Your task to perform on an android device: Search for Italian restaurants on Maps Image 0: 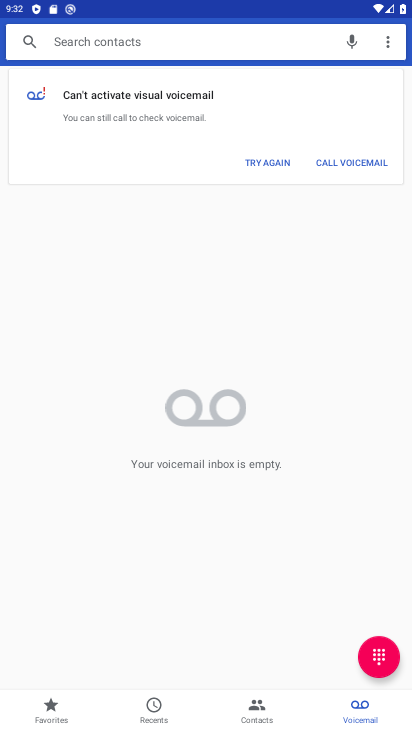
Step 0: press home button
Your task to perform on an android device: Search for Italian restaurants on Maps Image 1: 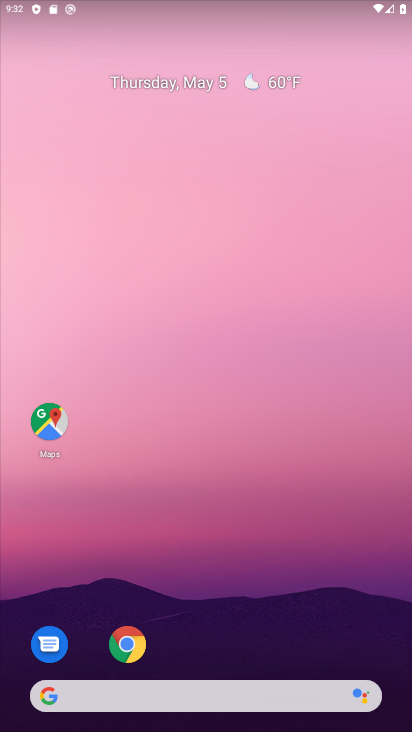
Step 1: drag from (388, 645) to (356, 45)
Your task to perform on an android device: Search for Italian restaurants on Maps Image 2: 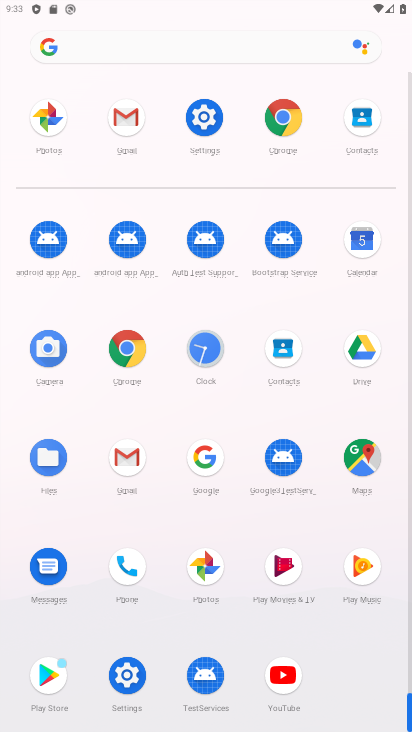
Step 2: click (361, 456)
Your task to perform on an android device: Search for Italian restaurants on Maps Image 3: 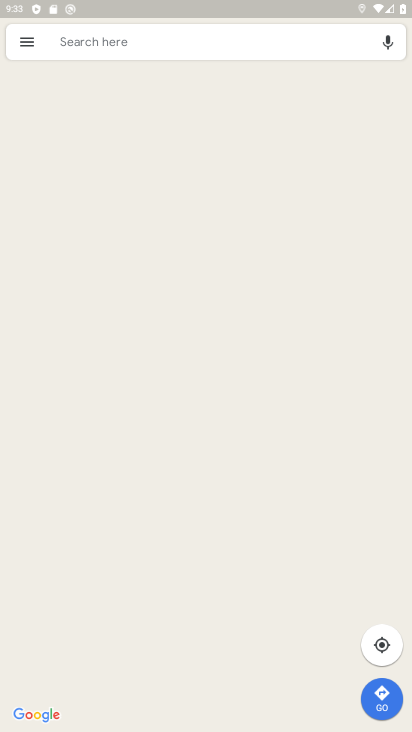
Step 3: click (135, 43)
Your task to perform on an android device: Search for Italian restaurants on Maps Image 4: 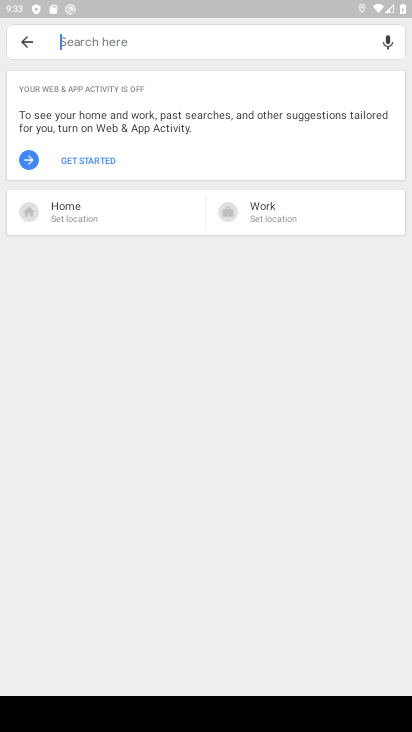
Step 4: type "italian restaurants "
Your task to perform on an android device: Search for Italian restaurants on Maps Image 5: 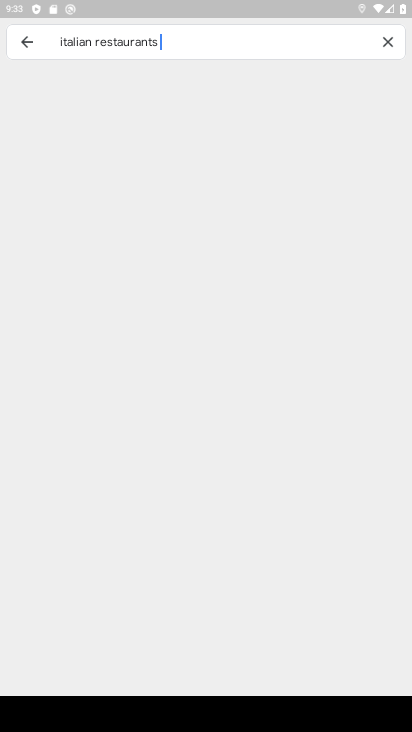
Step 5: click (173, 45)
Your task to perform on an android device: Search for Italian restaurants on Maps Image 6: 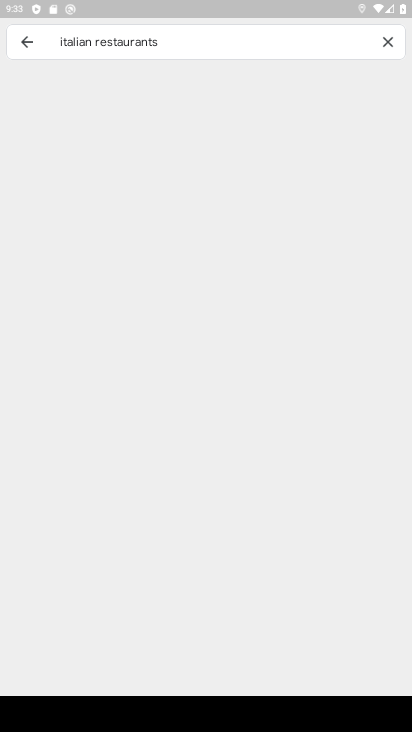
Step 6: click (173, 45)
Your task to perform on an android device: Search for Italian restaurants on Maps Image 7: 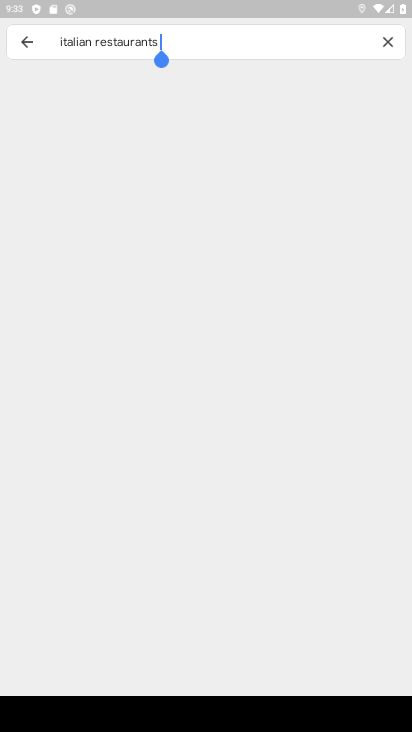
Step 7: task complete